Your task to perform on an android device: open app "Duolingo: language lessons" (install if not already installed) Image 0: 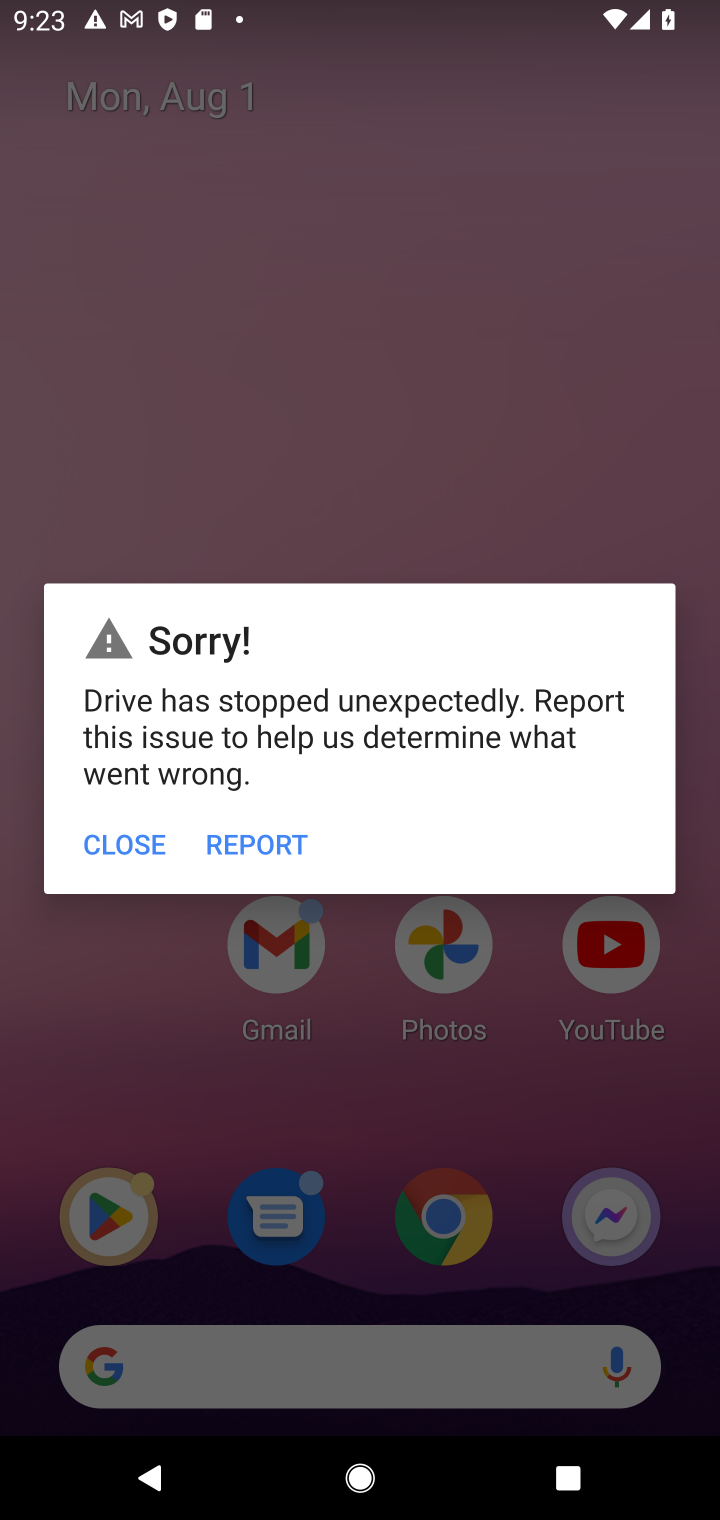
Step 0: press home button
Your task to perform on an android device: open app "Duolingo: language lessons" (install if not already installed) Image 1: 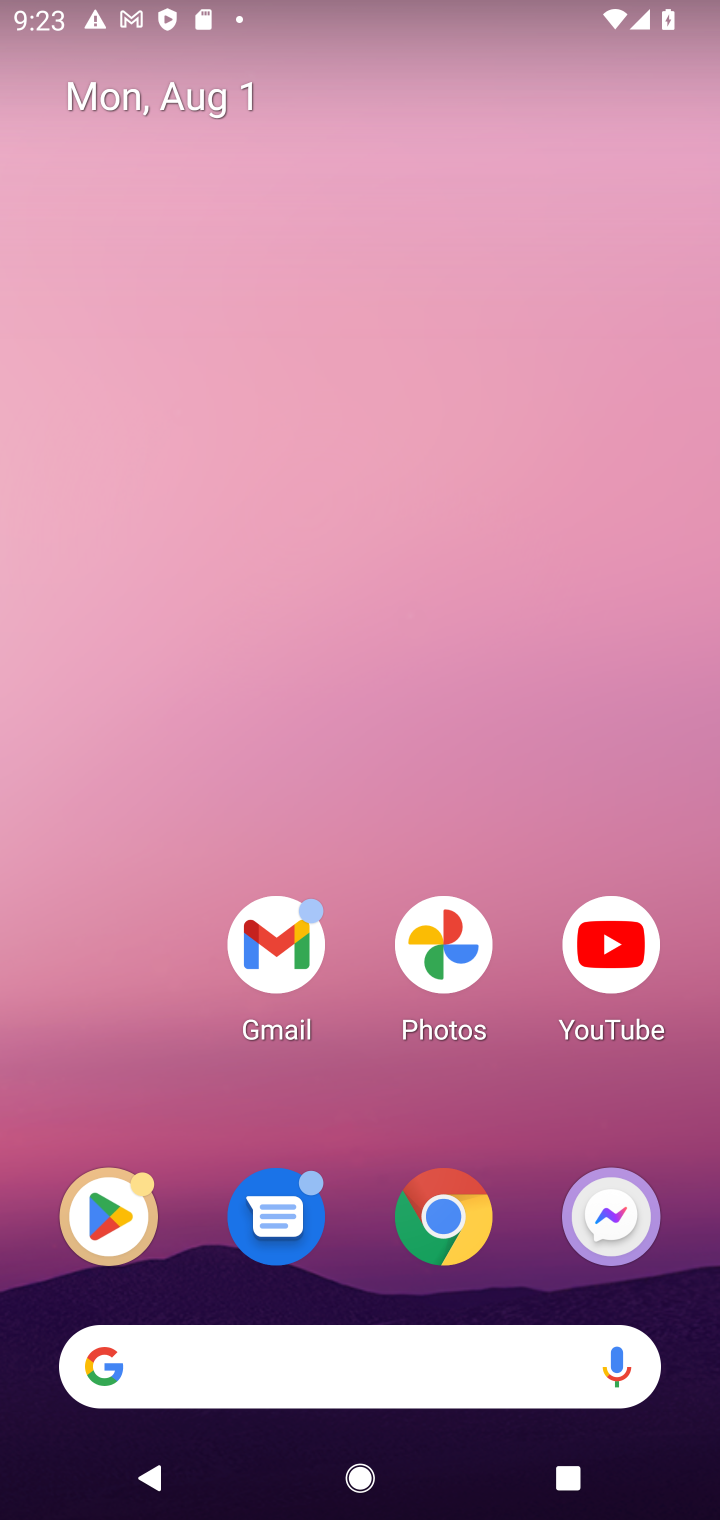
Step 1: click (110, 1228)
Your task to perform on an android device: open app "Duolingo: language lessons" (install if not already installed) Image 2: 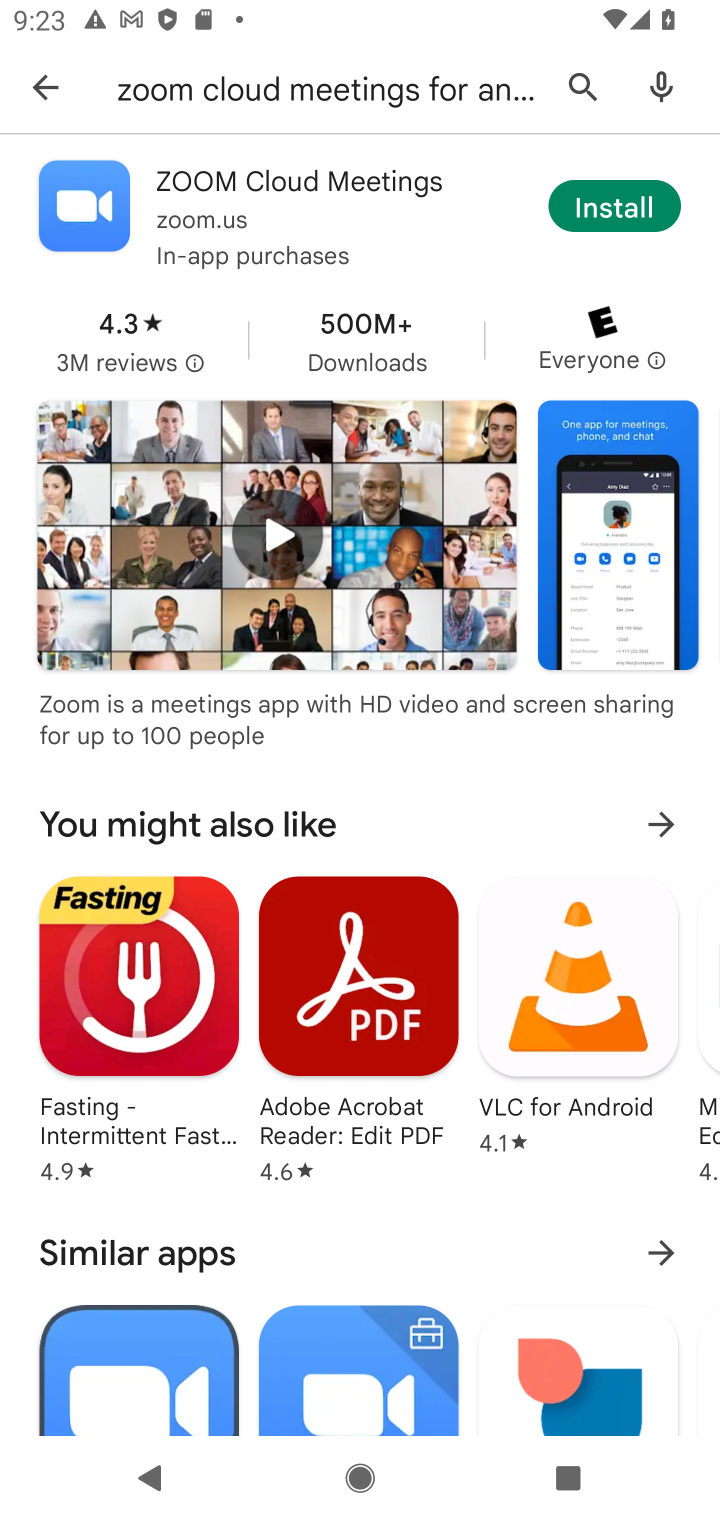
Step 2: click (597, 81)
Your task to perform on an android device: open app "Duolingo: language lessons" (install if not already installed) Image 3: 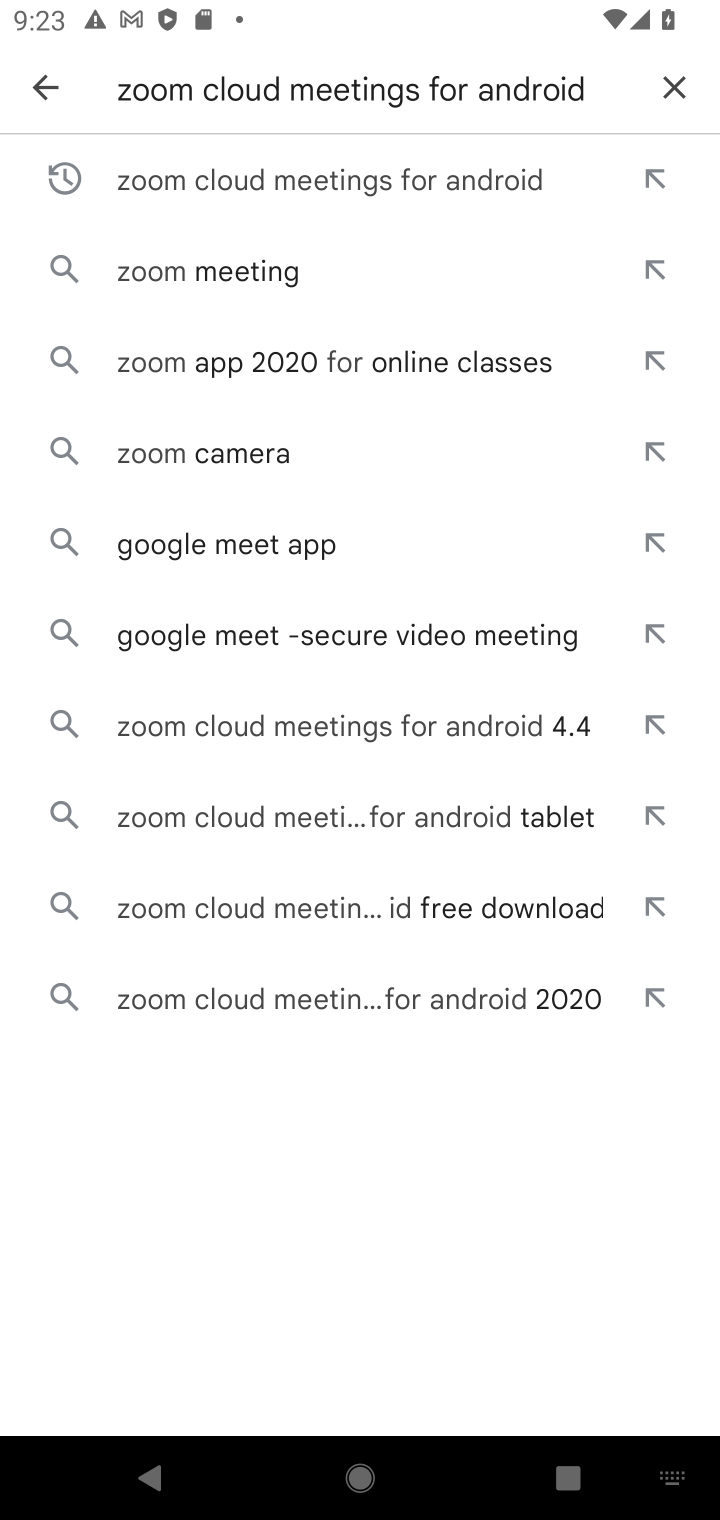
Step 3: click (663, 94)
Your task to perform on an android device: open app "Duolingo: language lessons" (install if not already installed) Image 4: 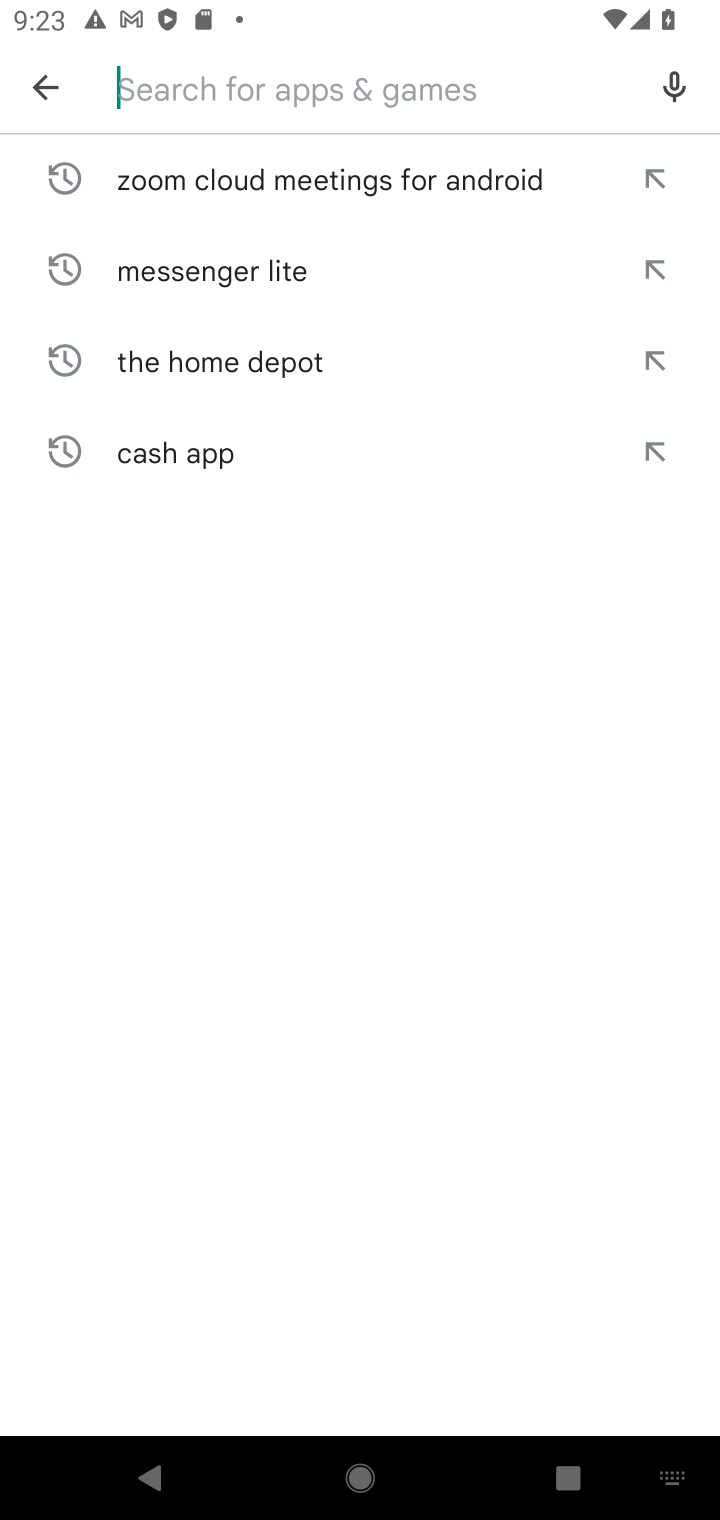
Step 4: type "Duolingo: language lessons"
Your task to perform on an android device: open app "Duolingo: language lessons" (install if not already installed) Image 5: 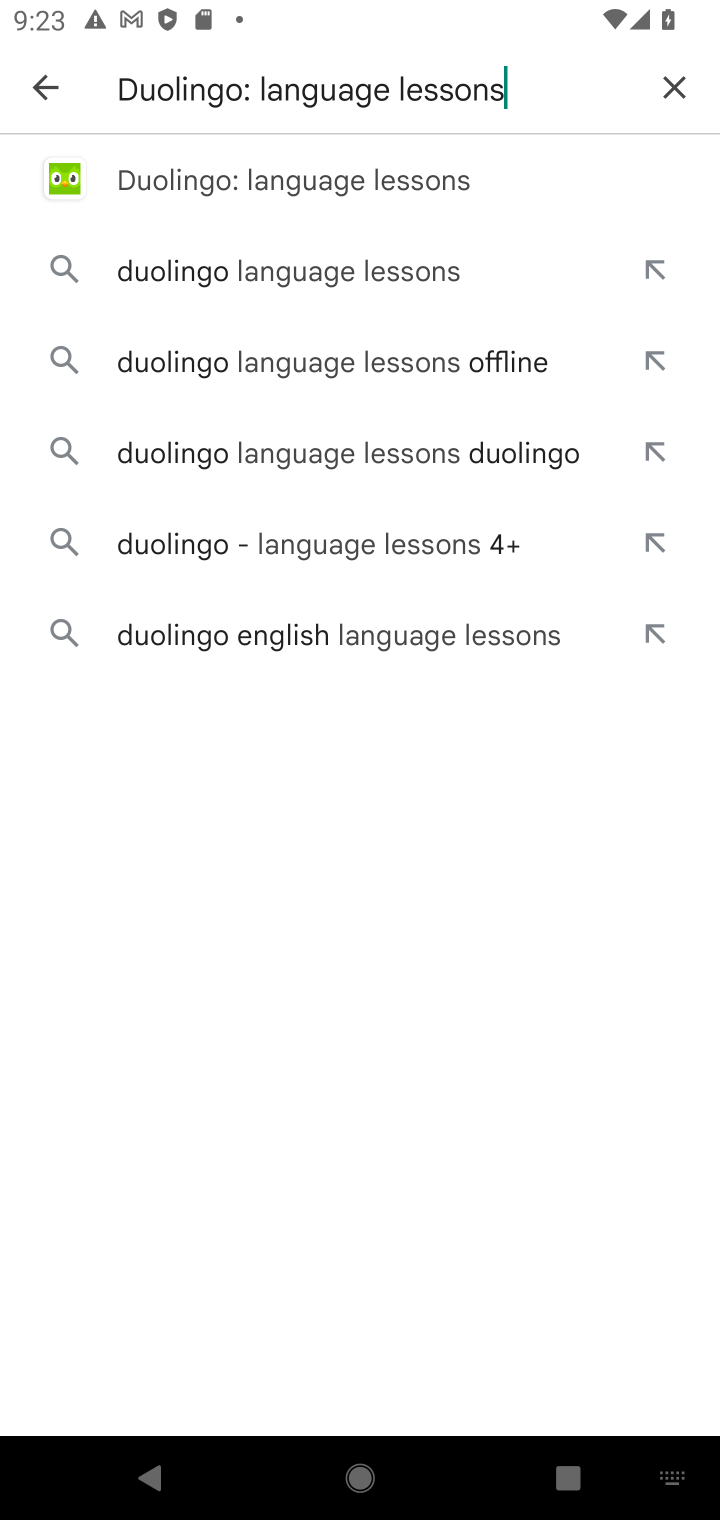
Step 5: click (214, 190)
Your task to perform on an android device: open app "Duolingo: language lessons" (install if not already installed) Image 6: 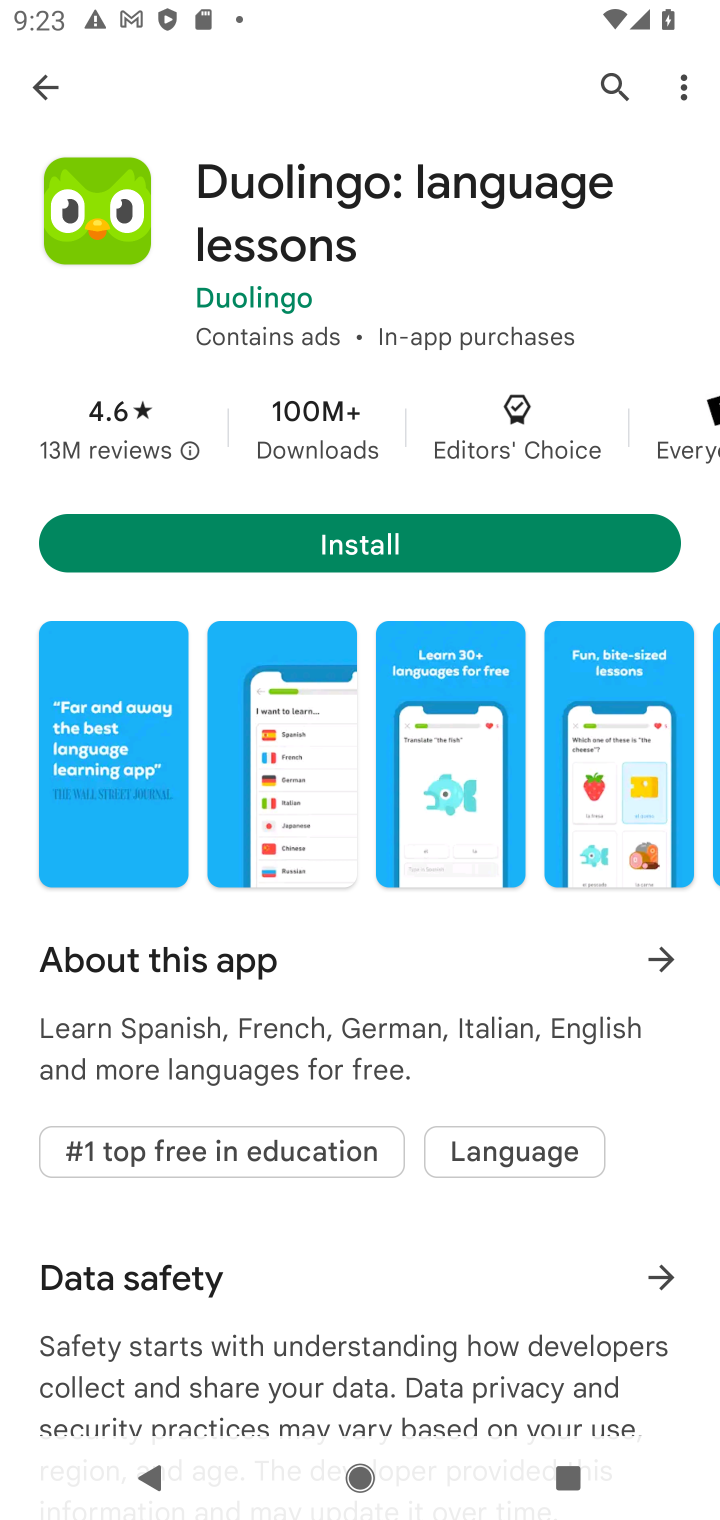
Step 6: click (369, 547)
Your task to perform on an android device: open app "Duolingo: language lessons" (install if not already installed) Image 7: 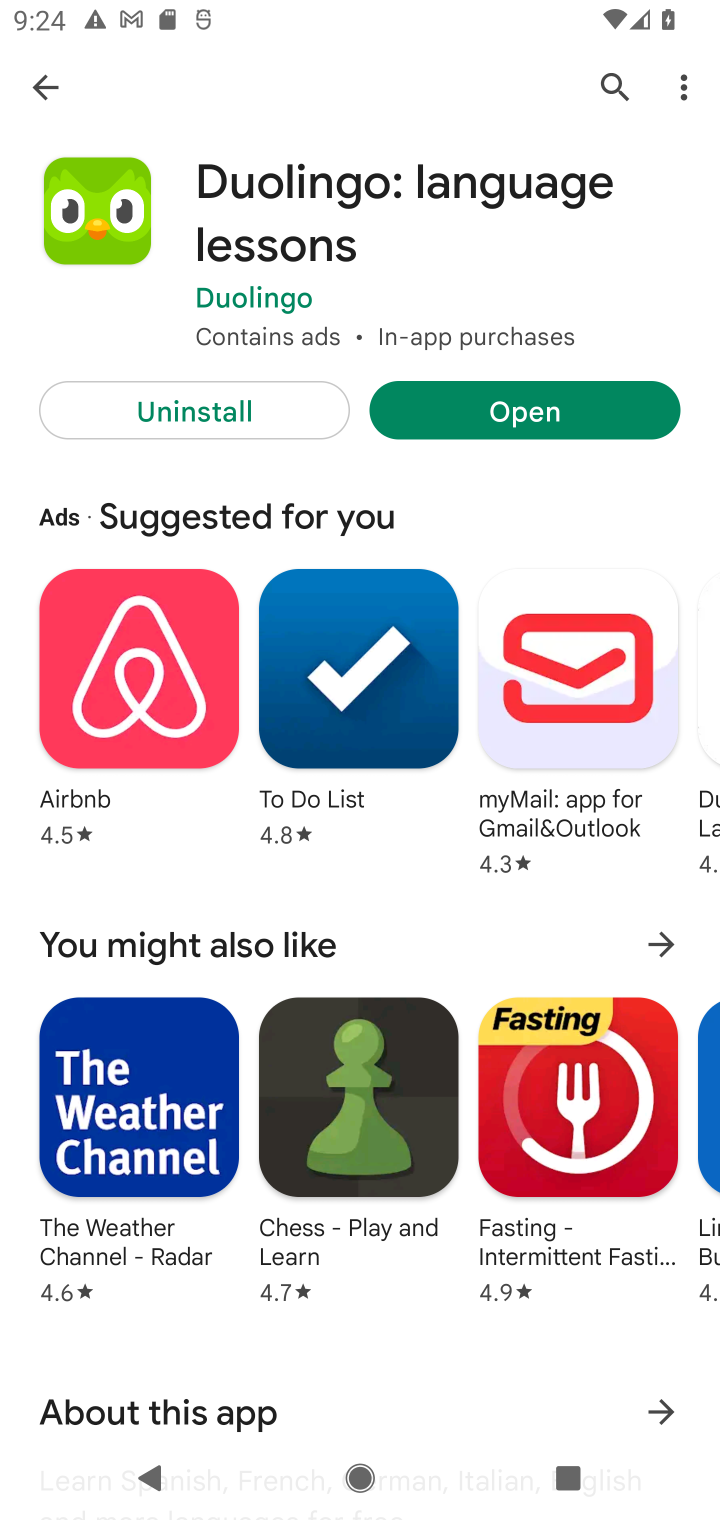
Step 7: click (478, 417)
Your task to perform on an android device: open app "Duolingo: language lessons" (install if not already installed) Image 8: 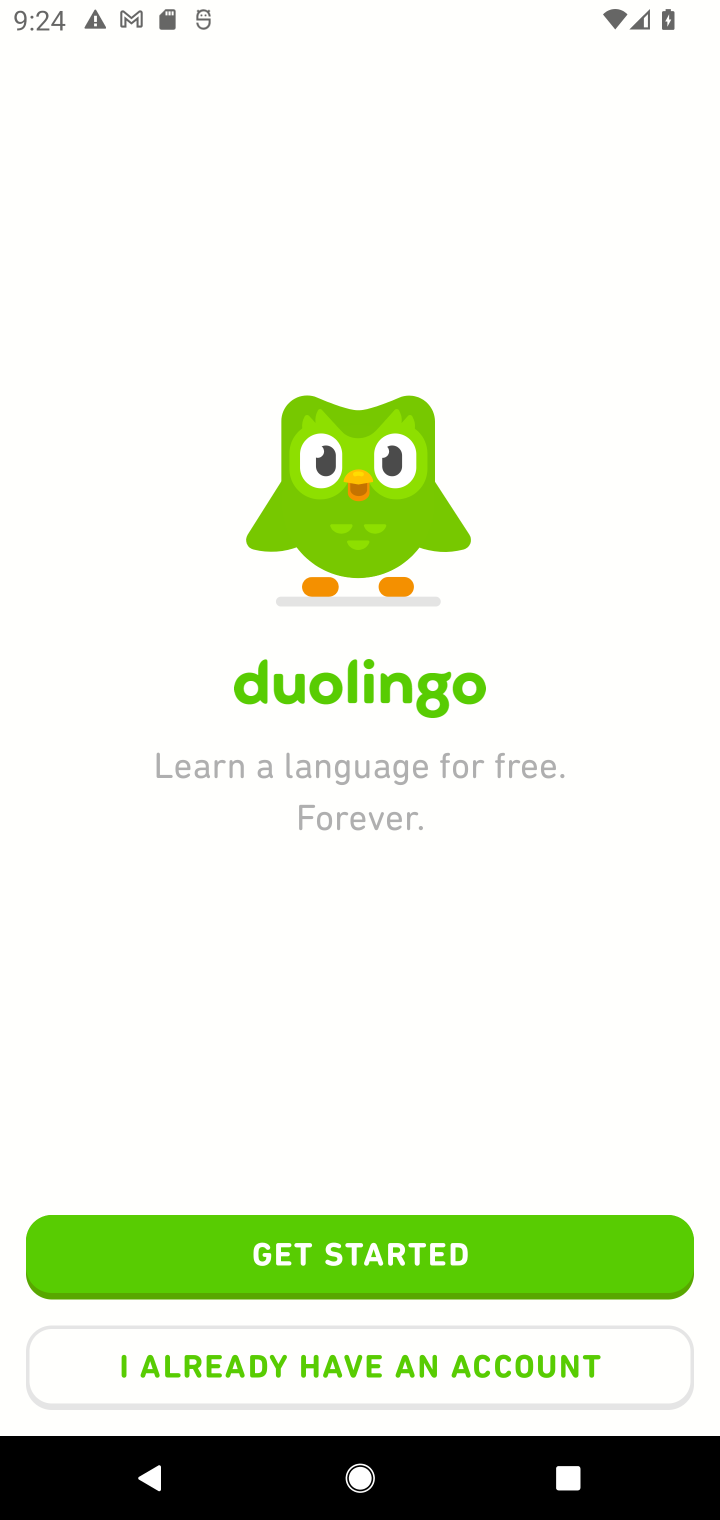
Step 8: task complete